Your task to perform on an android device: turn on data saver in the chrome app Image 0: 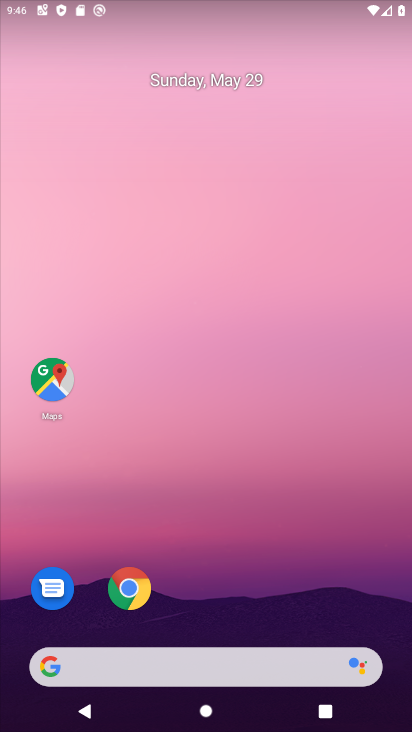
Step 0: drag from (197, 600) to (242, 222)
Your task to perform on an android device: turn on data saver in the chrome app Image 1: 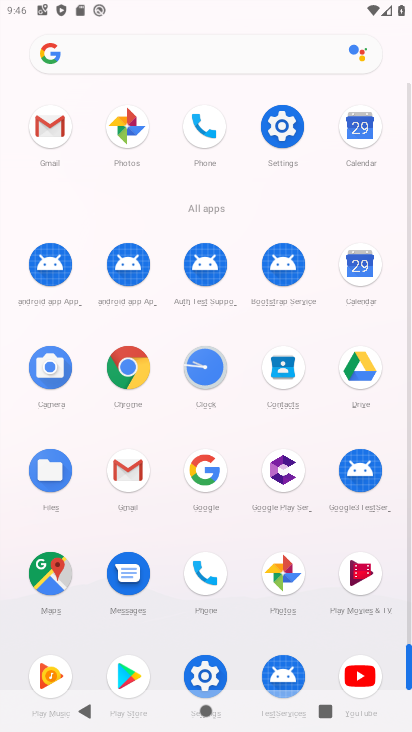
Step 1: click (135, 390)
Your task to perform on an android device: turn on data saver in the chrome app Image 2: 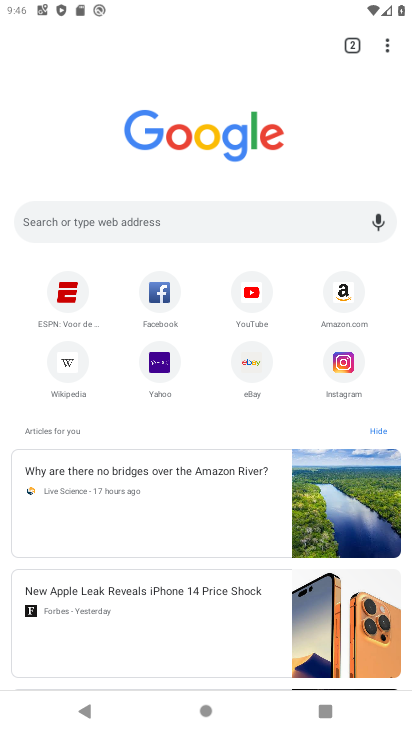
Step 2: click (392, 50)
Your task to perform on an android device: turn on data saver in the chrome app Image 3: 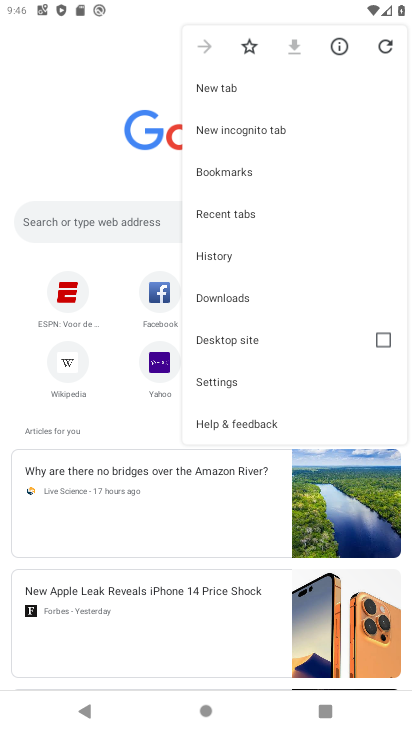
Step 3: click (261, 385)
Your task to perform on an android device: turn on data saver in the chrome app Image 4: 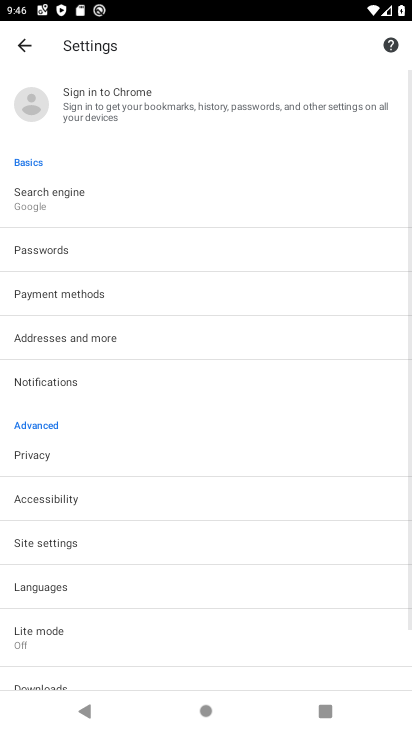
Step 4: click (75, 640)
Your task to perform on an android device: turn on data saver in the chrome app Image 5: 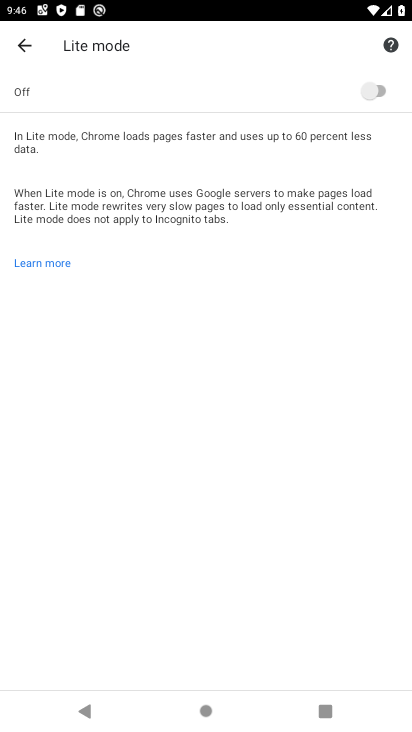
Step 5: click (353, 98)
Your task to perform on an android device: turn on data saver in the chrome app Image 6: 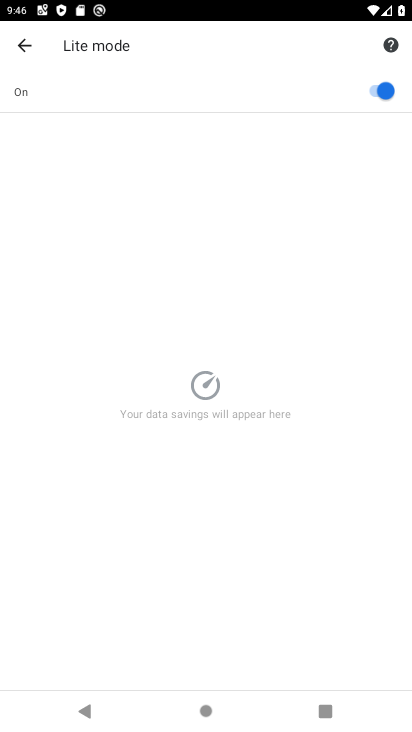
Step 6: task complete